Your task to perform on an android device: Open Wikipedia Image 0: 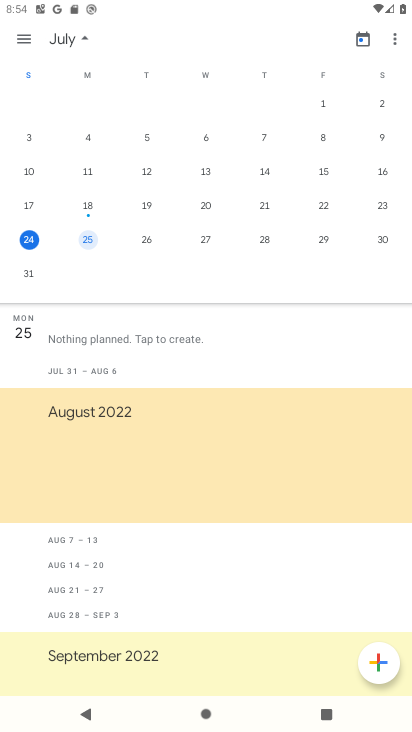
Step 0: press home button
Your task to perform on an android device: Open Wikipedia Image 1: 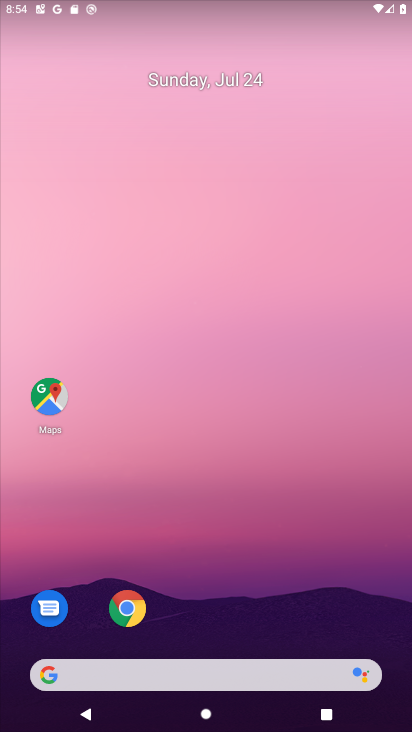
Step 1: click (135, 618)
Your task to perform on an android device: Open Wikipedia Image 2: 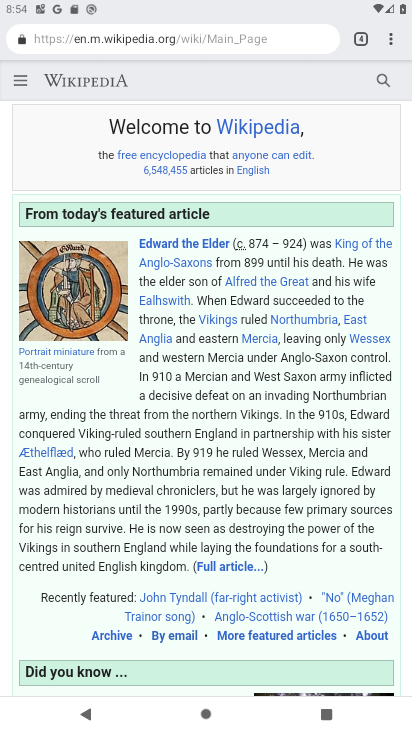
Step 2: task complete